Your task to perform on an android device: open the mobile data screen to see how much data has been used Image 0: 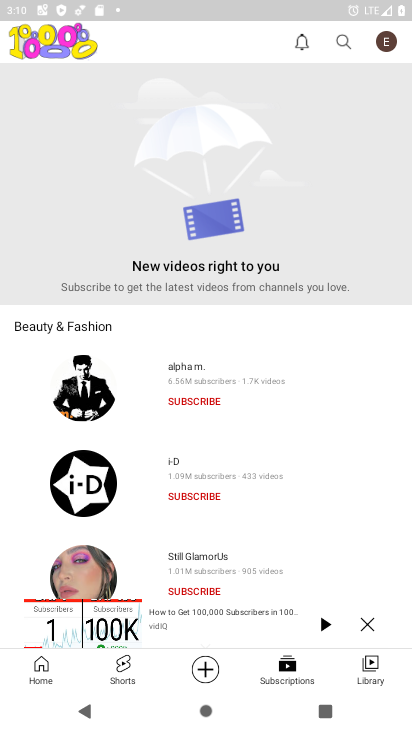
Step 0: press home button
Your task to perform on an android device: open the mobile data screen to see how much data has been used Image 1: 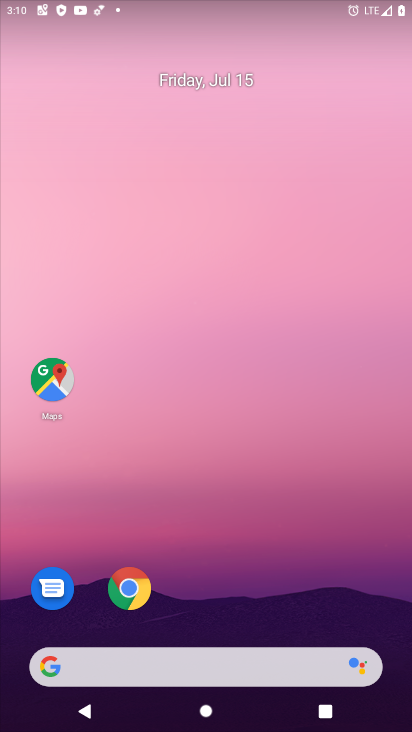
Step 1: drag from (161, 673) to (160, 109)
Your task to perform on an android device: open the mobile data screen to see how much data has been used Image 2: 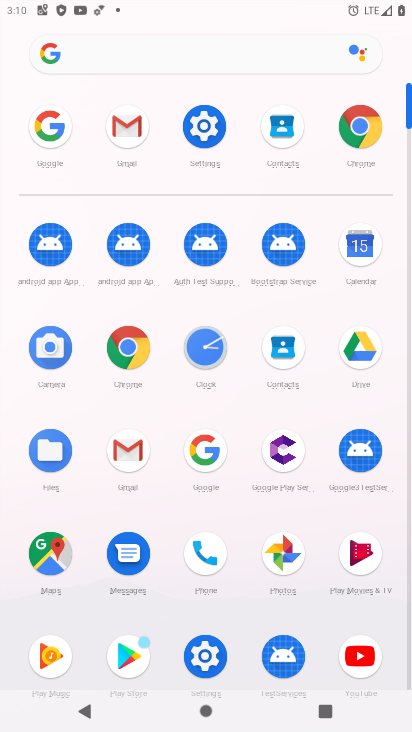
Step 2: click (206, 125)
Your task to perform on an android device: open the mobile data screen to see how much data has been used Image 3: 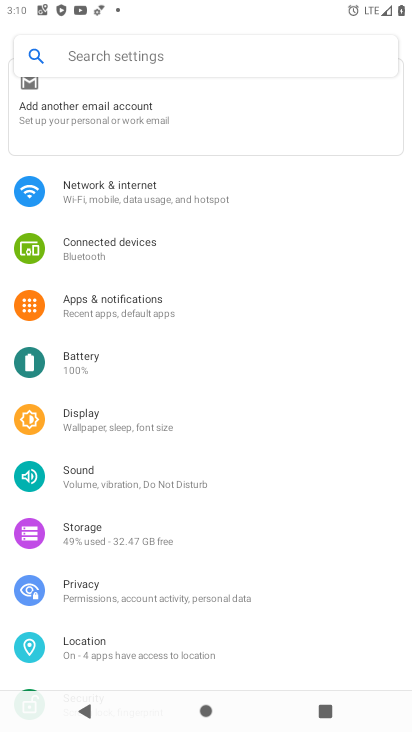
Step 3: click (121, 201)
Your task to perform on an android device: open the mobile data screen to see how much data has been used Image 4: 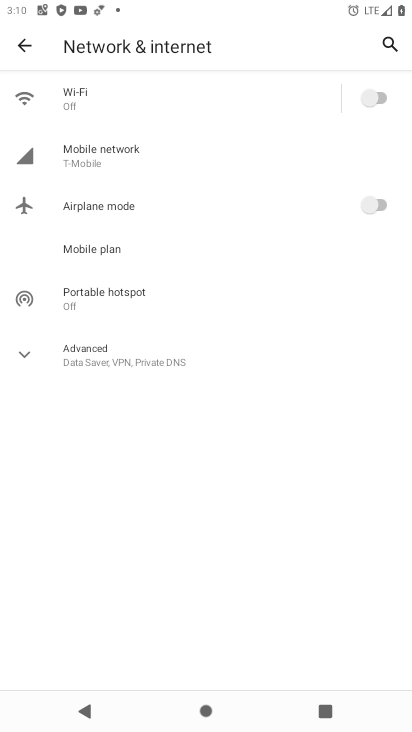
Step 4: click (96, 151)
Your task to perform on an android device: open the mobile data screen to see how much data has been used Image 5: 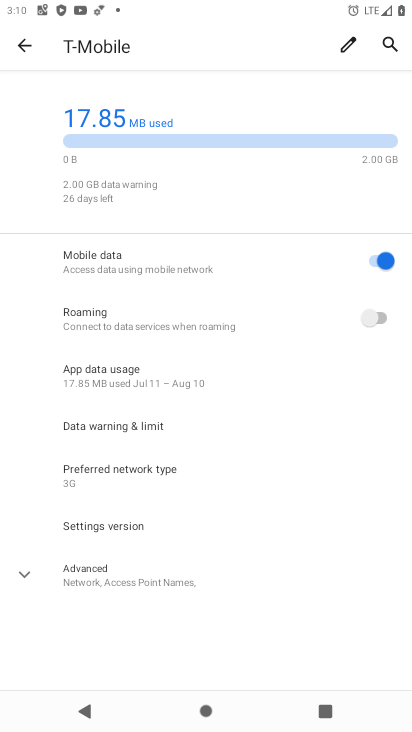
Step 5: task complete